Your task to perform on an android device: Open settings Image 0: 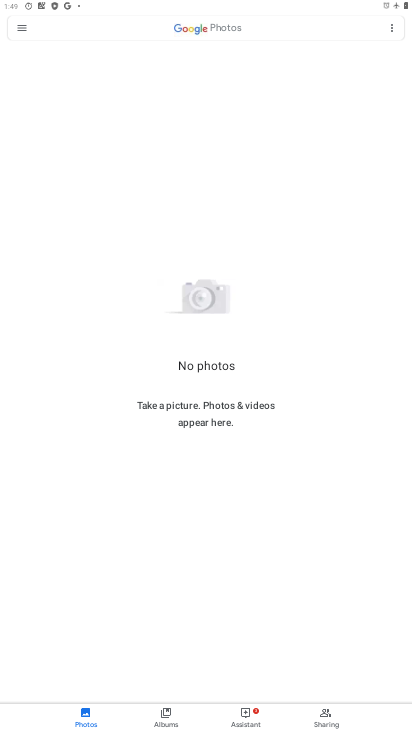
Step 0: press home button
Your task to perform on an android device: Open settings Image 1: 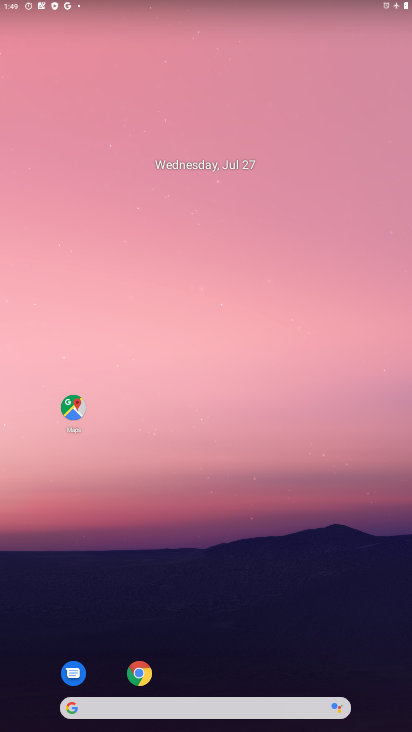
Step 1: drag from (214, 672) to (258, 19)
Your task to perform on an android device: Open settings Image 2: 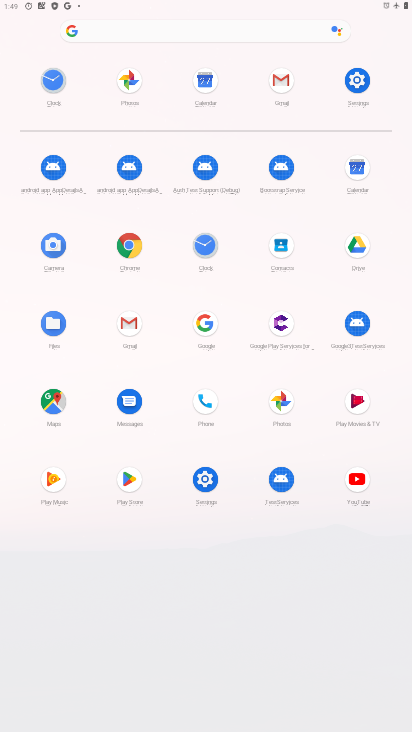
Step 2: click (360, 86)
Your task to perform on an android device: Open settings Image 3: 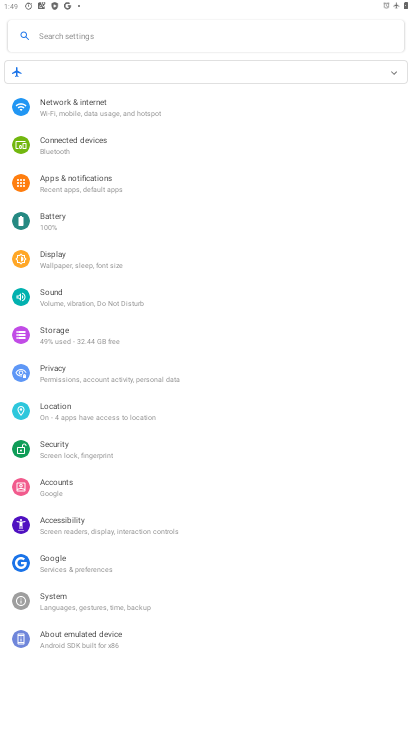
Step 3: task complete